Your task to perform on an android device: Open battery settings Image 0: 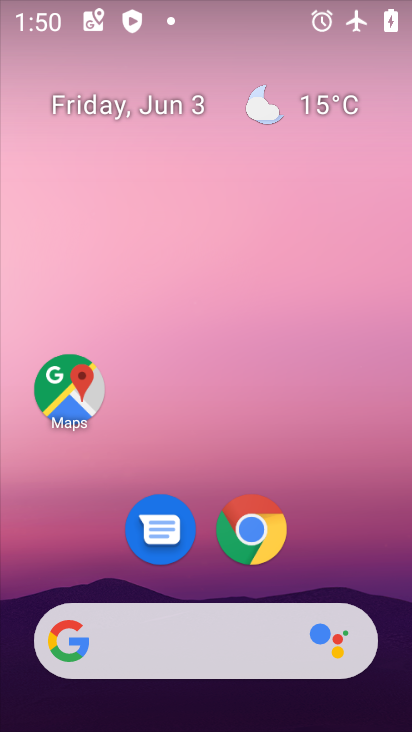
Step 0: drag from (347, 540) to (348, 150)
Your task to perform on an android device: Open battery settings Image 1: 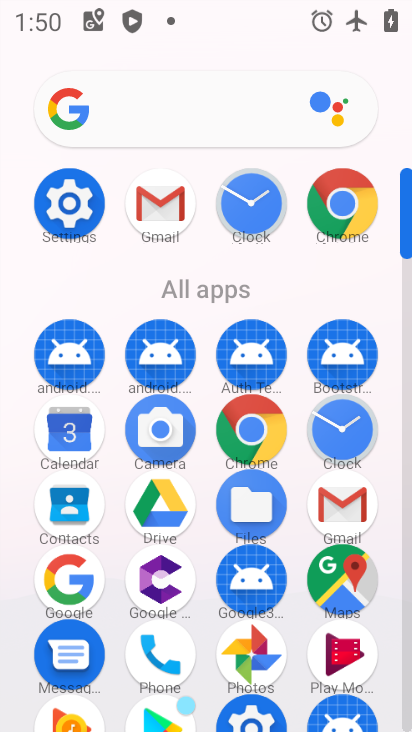
Step 1: click (85, 217)
Your task to perform on an android device: Open battery settings Image 2: 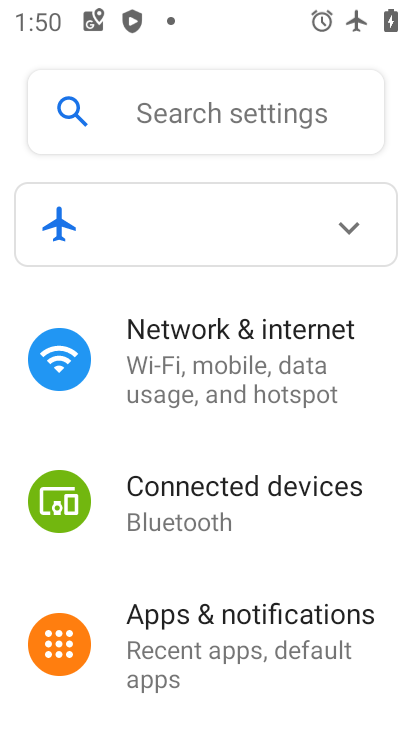
Step 2: drag from (350, 539) to (369, 391)
Your task to perform on an android device: Open battery settings Image 3: 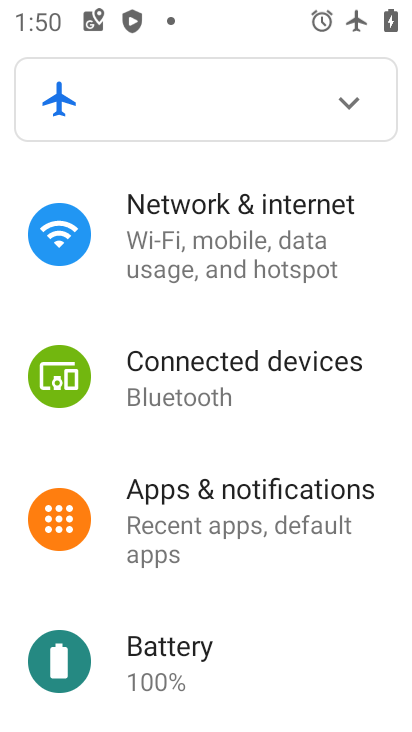
Step 3: drag from (360, 580) to (363, 441)
Your task to perform on an android device: Open battery settings Image 4: 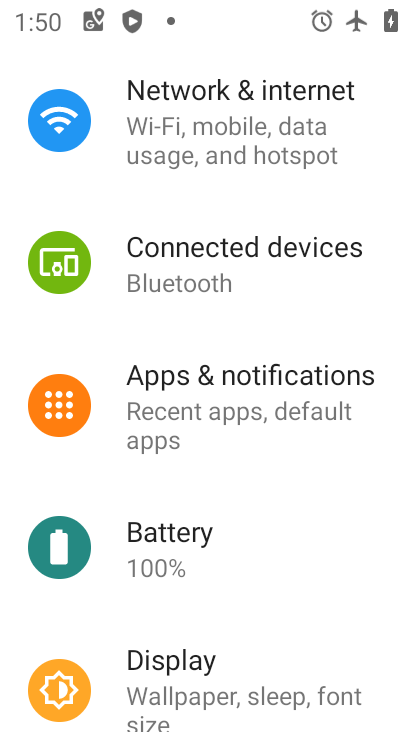
Step 4: drag from (358, 580) to (355, 444)
Your task to perform on an android device: Open battery settings Image 5: 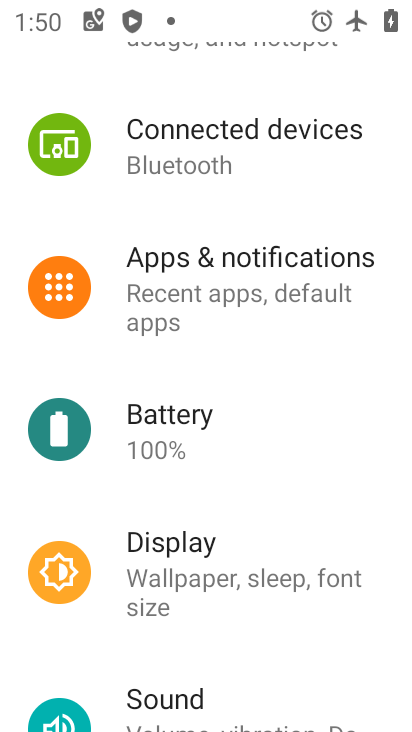
Step 5: click (186, 445)
Your task to perform on an android device: Open battery settings Image 6: 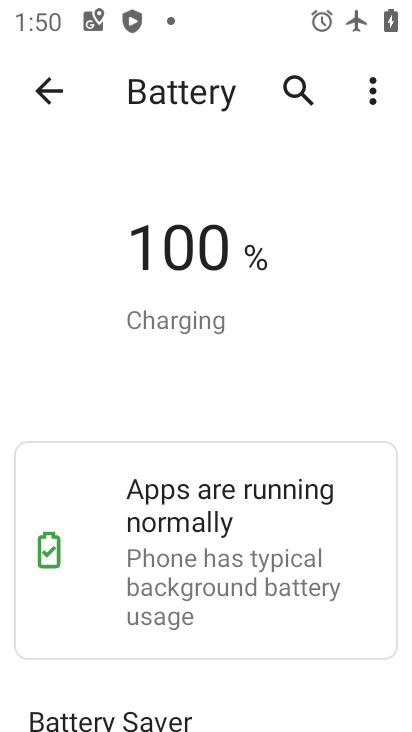
Step 6: task complete